Your task to perform on an android device: Search for pizza restaurants on Maps Image 0: 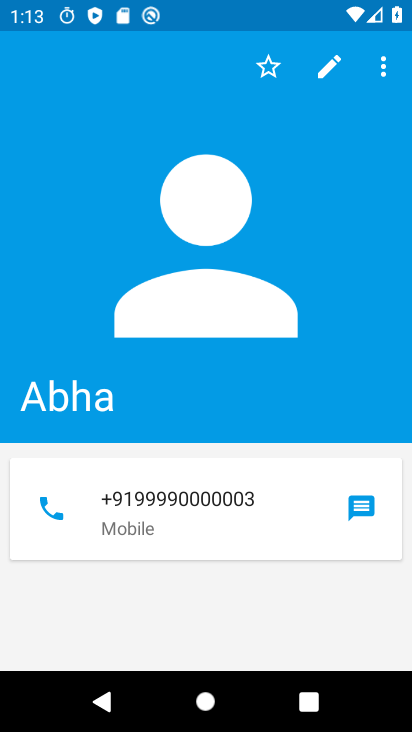
Step 0: press home button
Your task to perform on an android device: Search for pizza restaurants on Maps Image 1: 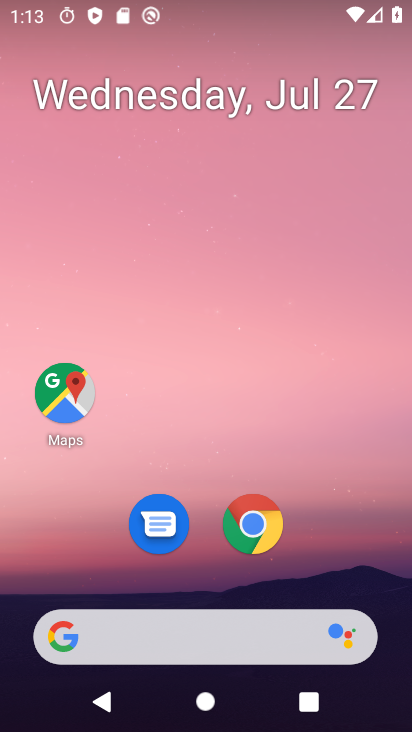
Step 1: click (62, 388)
Your task to perform on an android device: Search for pizza restaurants on Maps Image 2: 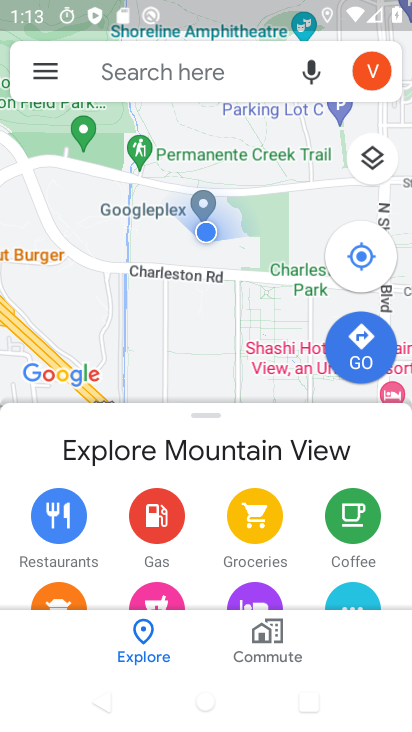
Step 2: click (164, 69)
Your task to perform on an android device: Search for pizza restaurants on Maps Image 3: 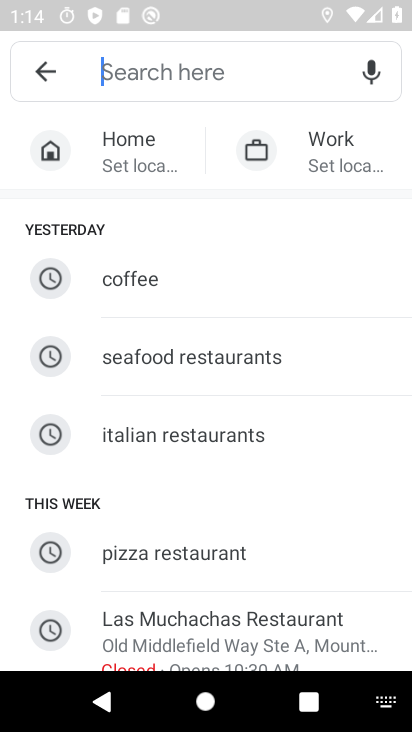
Step 3: click (199, 550)
Your task to perform on an android device: Search for pizza restaurants on Maps Image 4: 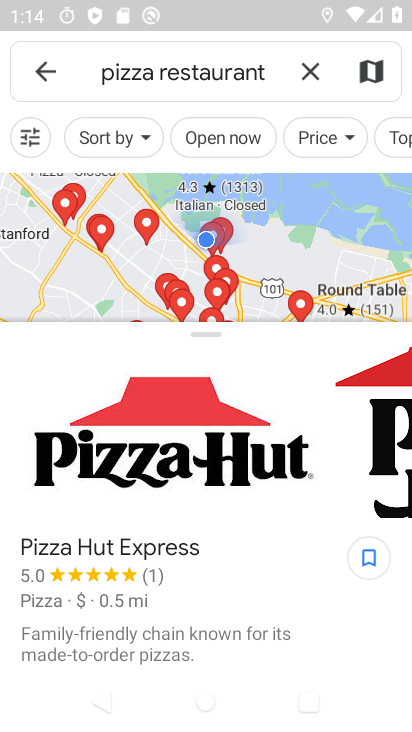
Step 4: task complete